Your task to perform on an android device: Find coffee shops on Maps Image 0: 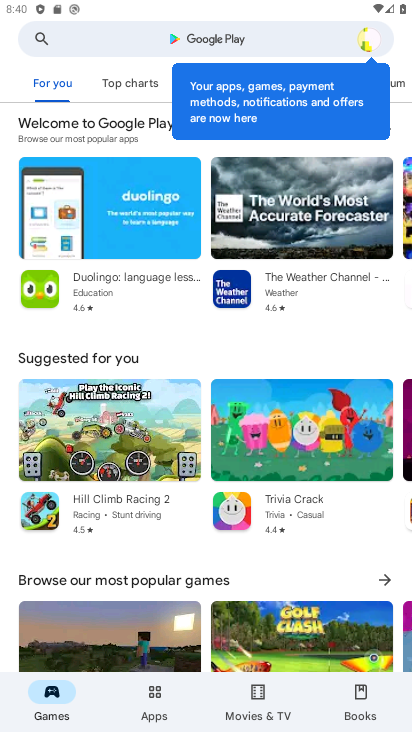
Step 0: press home button
Your task to perform on an android device: Find coffee shops on Maps Image 1: 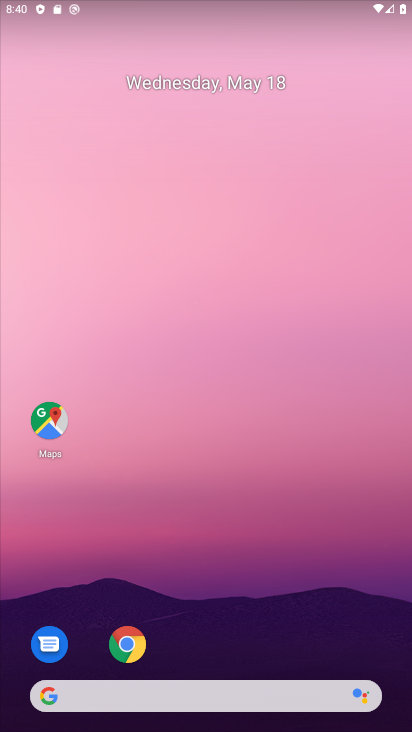
Step 1: click (45, 431)
Your task to perform on an android device: Find coffee shops on Maps Image 2: 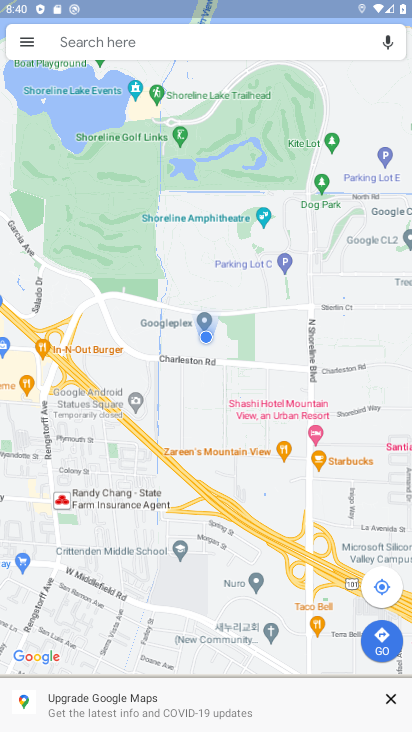
Step 2: click (167, 42)
Your task to perform on an android device: Find coffee shops on Maps Image 3: 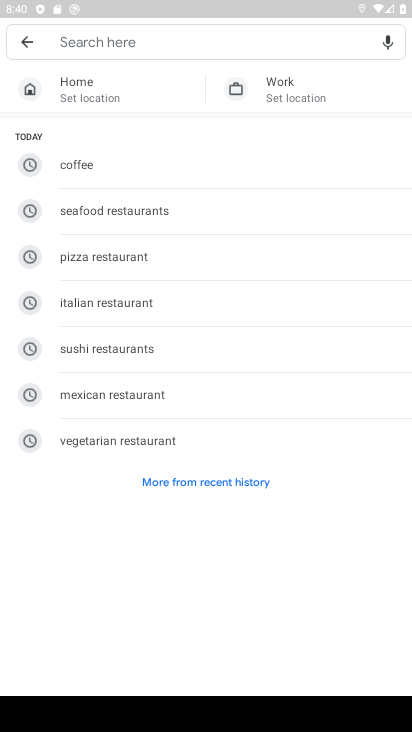
Step 3: type "coffee"
Your task to perform on an android device: Find coffee shops on Maps Image 4: 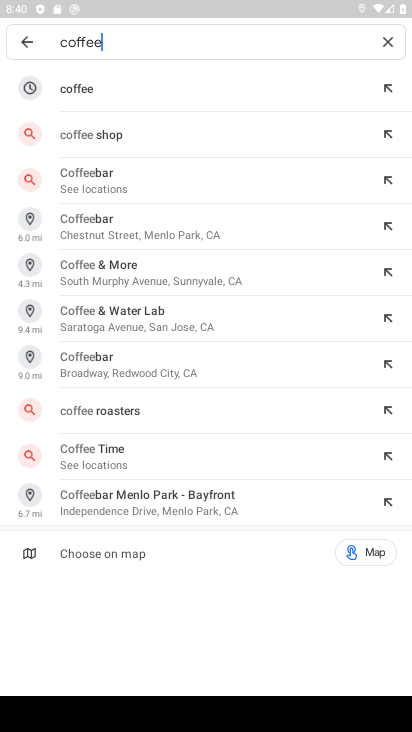
Step 4: click (87, 141)
Your task to perform on an android device: Find coffee shops on Maps Image 5: 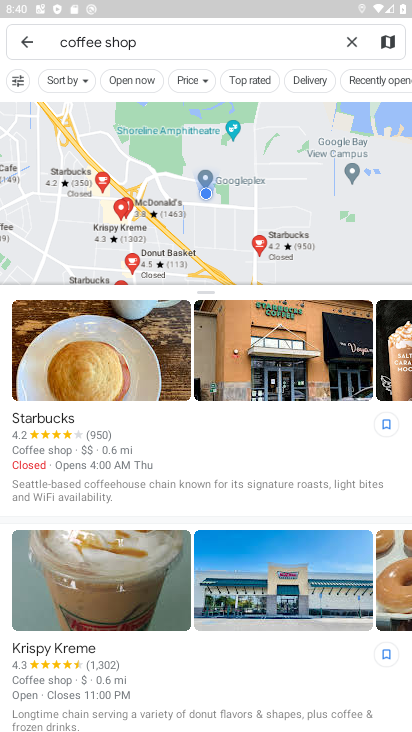
Step 5: task complete